Your task to perform on an android device: open app "DoorDash - Food Delivery" (install if not already installed) and enter user name: "Richard@outlook.com" and password: "informally" Image 0: 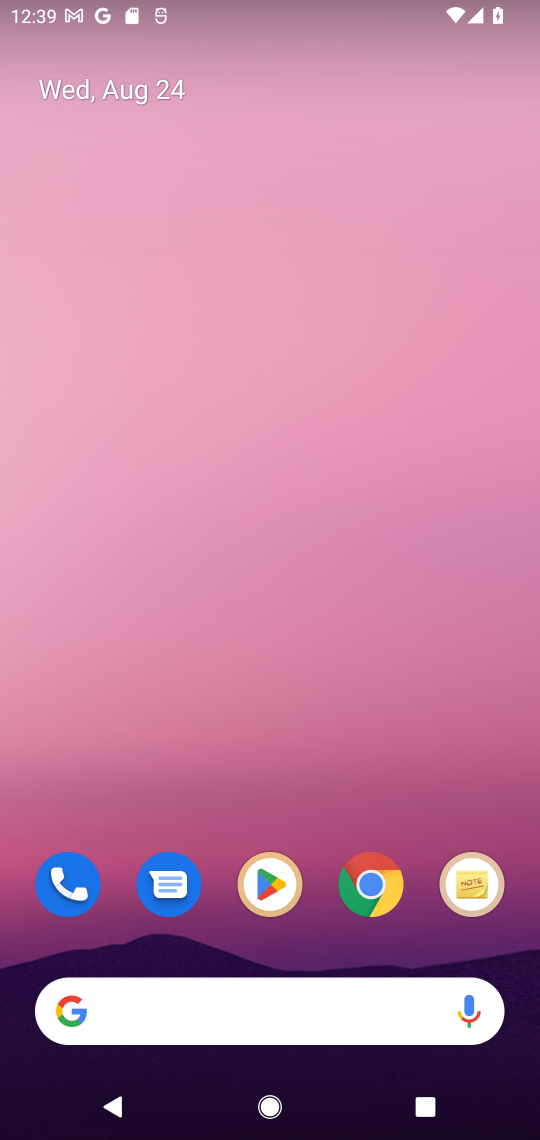
Step 0: drag from (241, 1016) to (243, 126)
Your task to perform on an android device: open app "DoorDash - Food Delivery" (install if not already installed) and enter user name: "Richard@outlook.com" and password: "informally" Image 1: 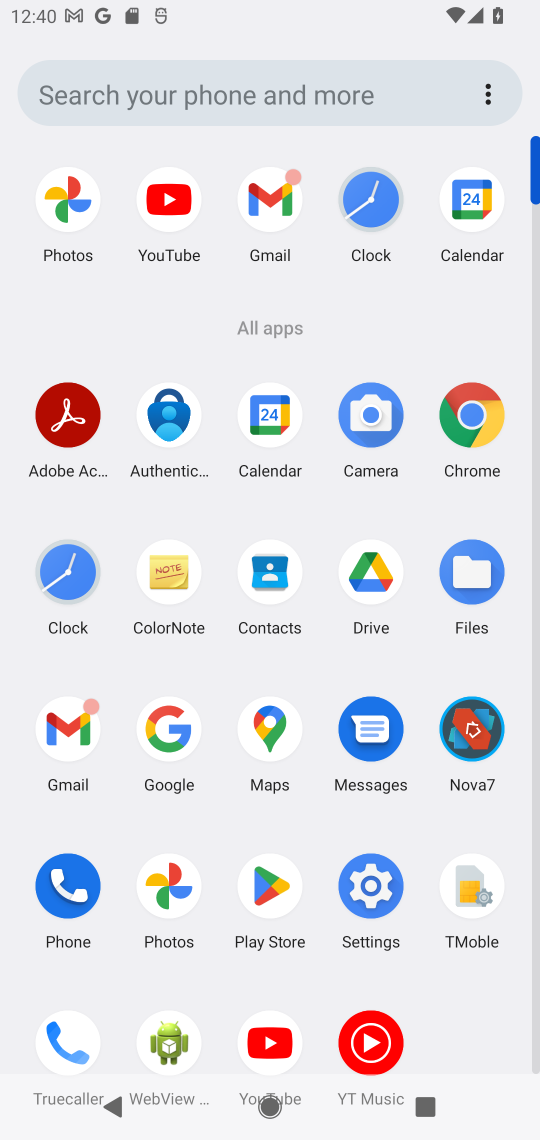
Step 1: click (276, 879)
Your task to perform on an android device: open app "DoorDash - Food Delivery" (install if not already installed) and enter user name: "Richard@outlook.com" and password: "informally" Image 2: 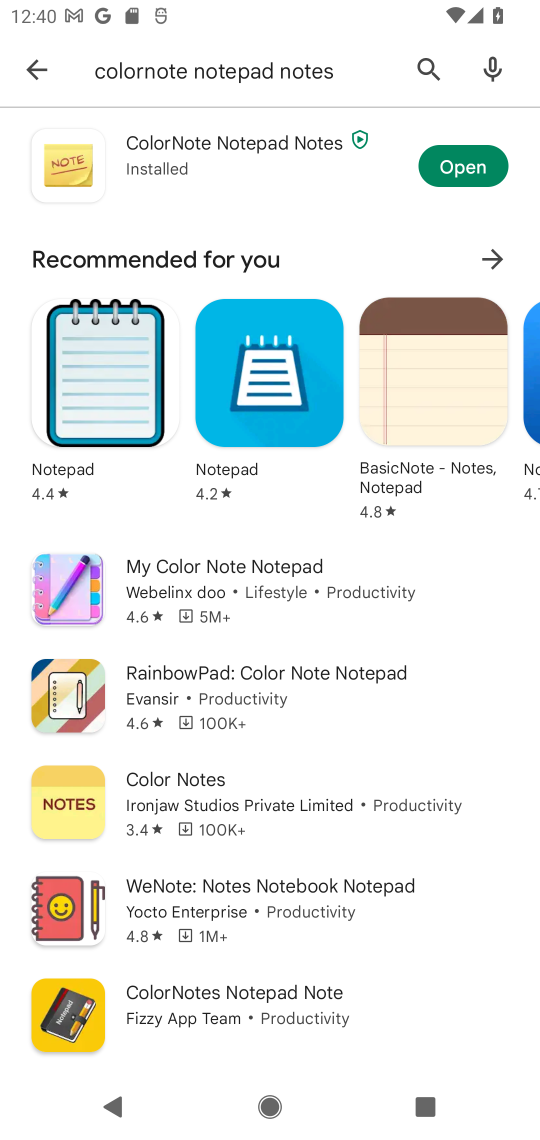
Step 2: press back button
Your task to perform on an android device: open app "DoorDash - Food Delivery" (install if not already installed) and enter user name: "Richard@outlook.com" and password: "informally" Image 3: 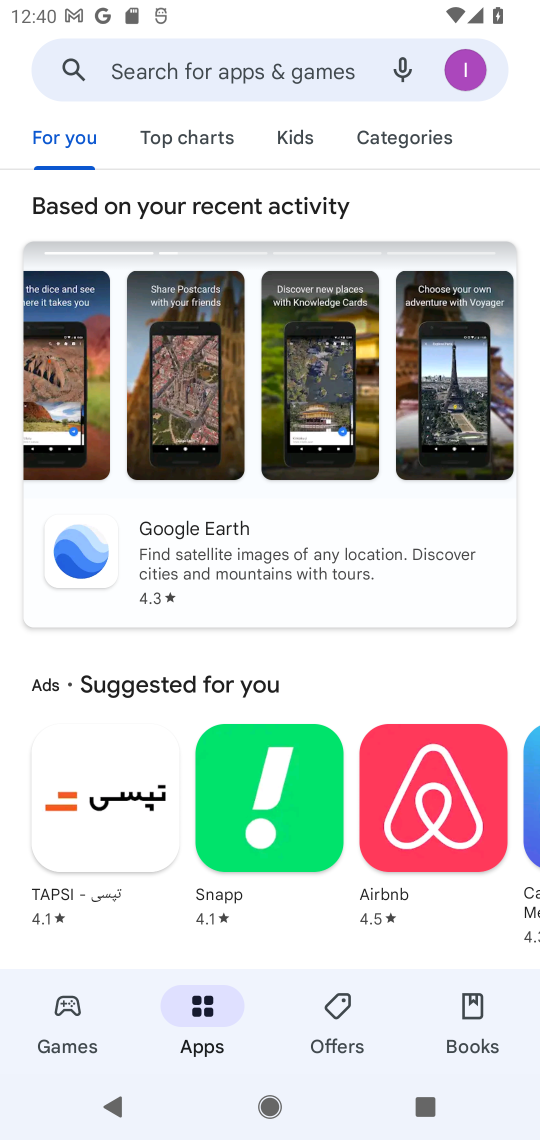
Step 3: click (182, 66)
Your task to perform on an android device: open app "DoorDash - Food Delivery" (install if not already installed) and enter user name: "Richard@outlook.com" and password: "informally" Image 4: 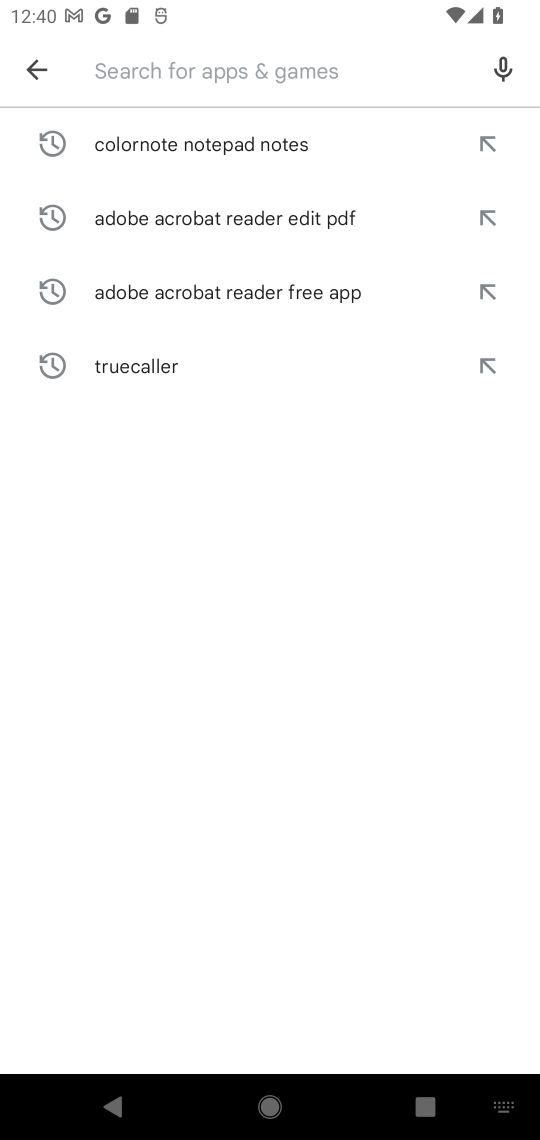
Step 4: type "DoorDash - Food Delivery"
Your task to perform on an android device: open app "DoorDash - Food Delivery" (install if not already installed) and enter user name: "Richard@outlook.com" and password: "informally" Image 5: 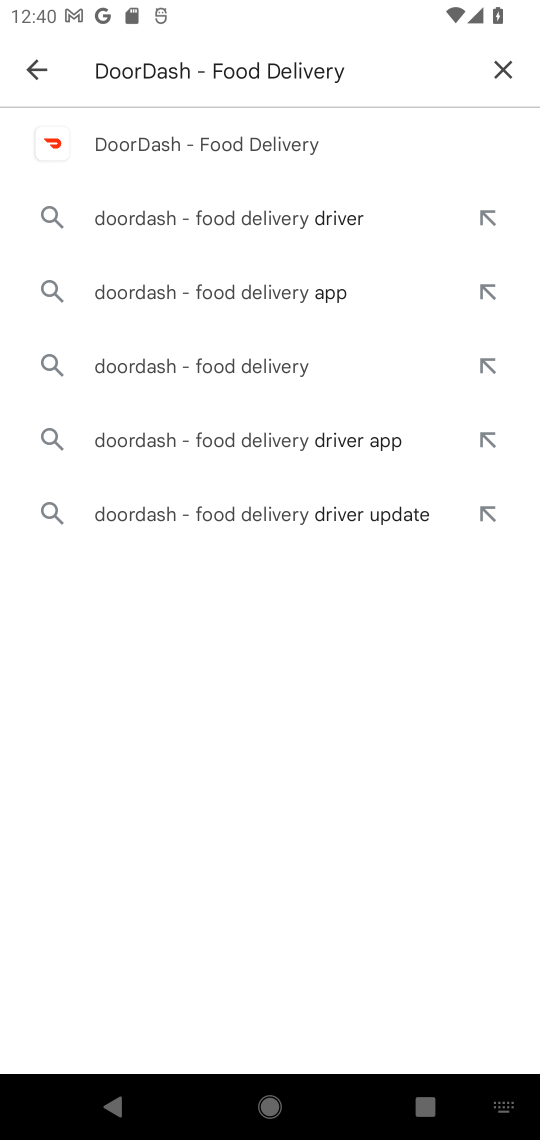
Step 5: click (296, 148)
Your task to perform on an android device: open app "DoorDash - Food Delivery" (install if not already installed) and enter user name: "Richard@outlook.com" and password: "informally" Image 6: 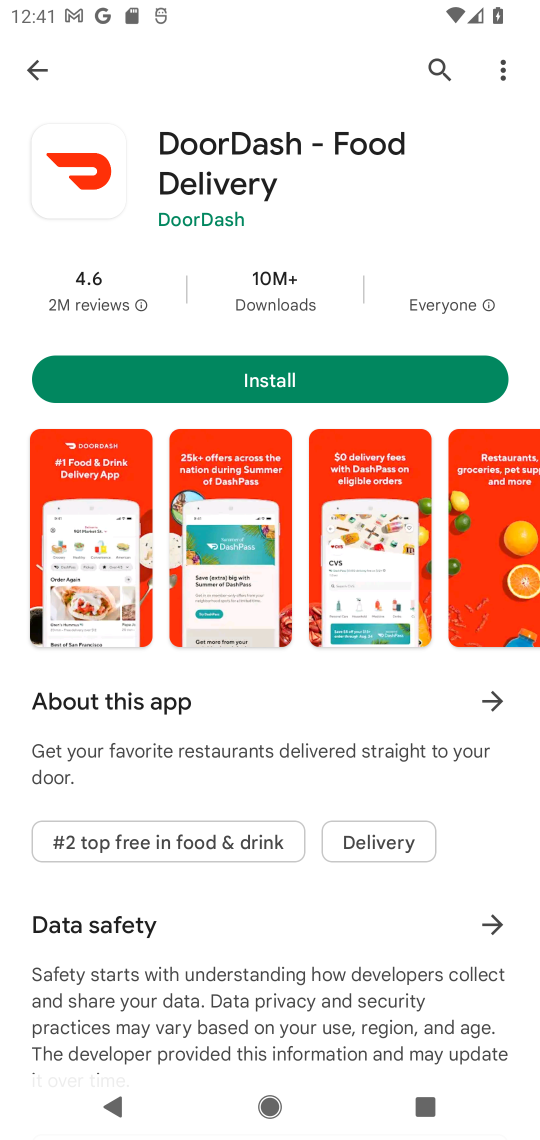
Step 6: click (261, 383)
Your task to perform on an android device: open app "DoorDash - Food Delivery" (install if not already installed) and enter user name: "Richard@outlook.com" and password: "informally" Image 7: 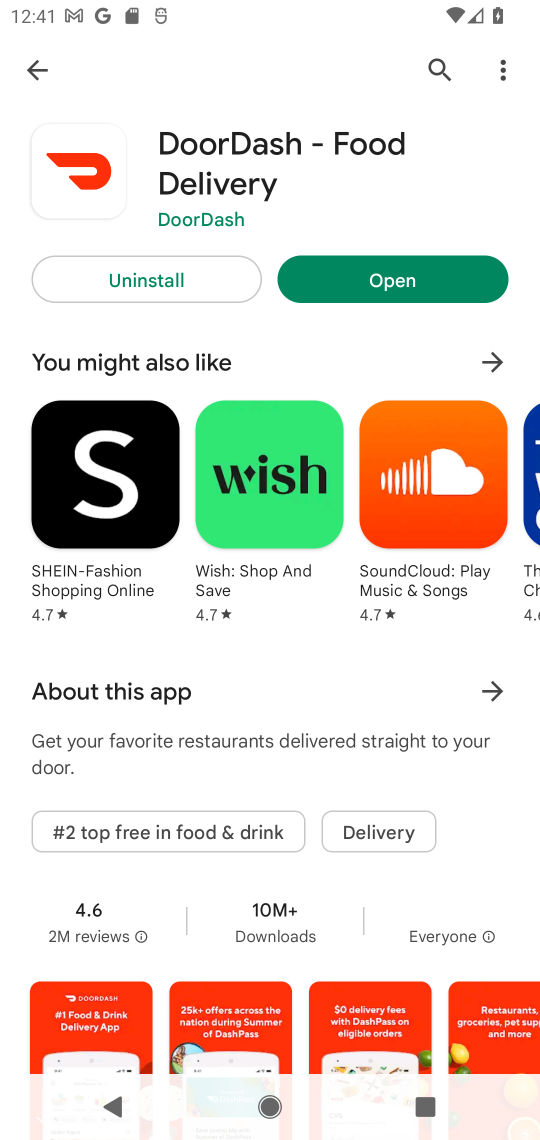
Step 7: click (399, 277)
Your task to perform on an android device: open app "DoorDash - Food Delivery" (install if not already installed) and enter user name: "Richard@outlook.com" and password: "informally" Image 8: 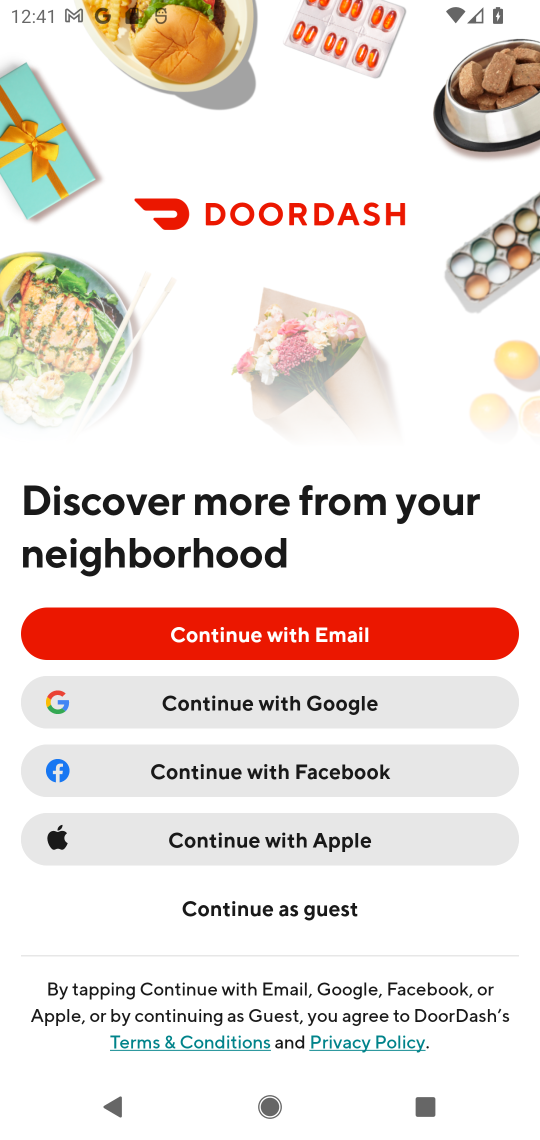
Step 8: click (258, 626)
Your task to perform on an android device: open app "DoorDash - Food Delivery" (install if not already installed) and enter user name: "Richard@outlook.com" and password: "informally" Image 9: 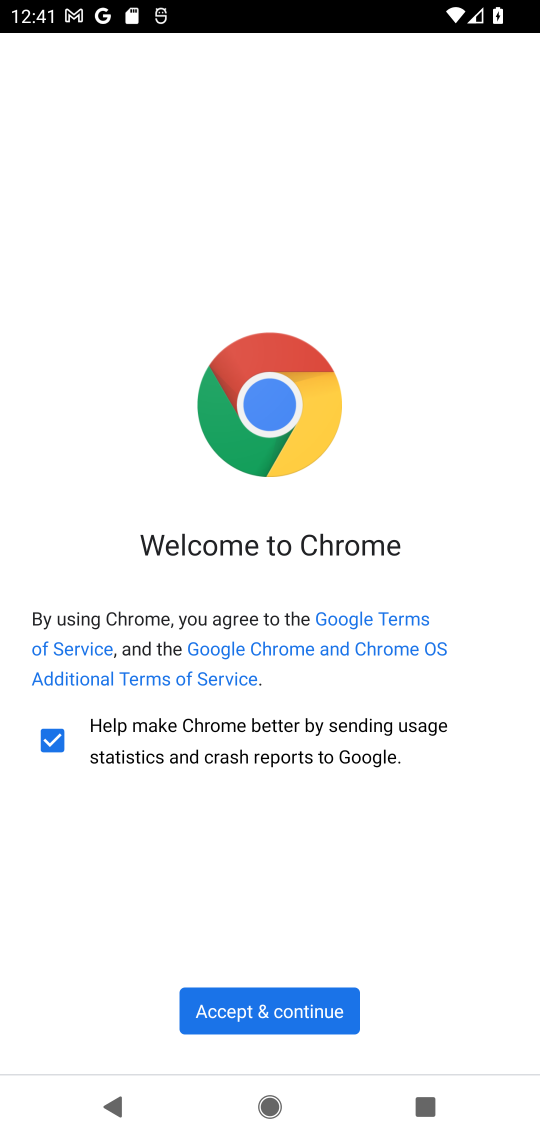
Step 9: click (246, 1013)
Your task to perform on an android device: open app "DoorDash - Food Delivery" (install if not already installed) and enter user name: "Richard@outlook.com" and password: "informally" Image 10: 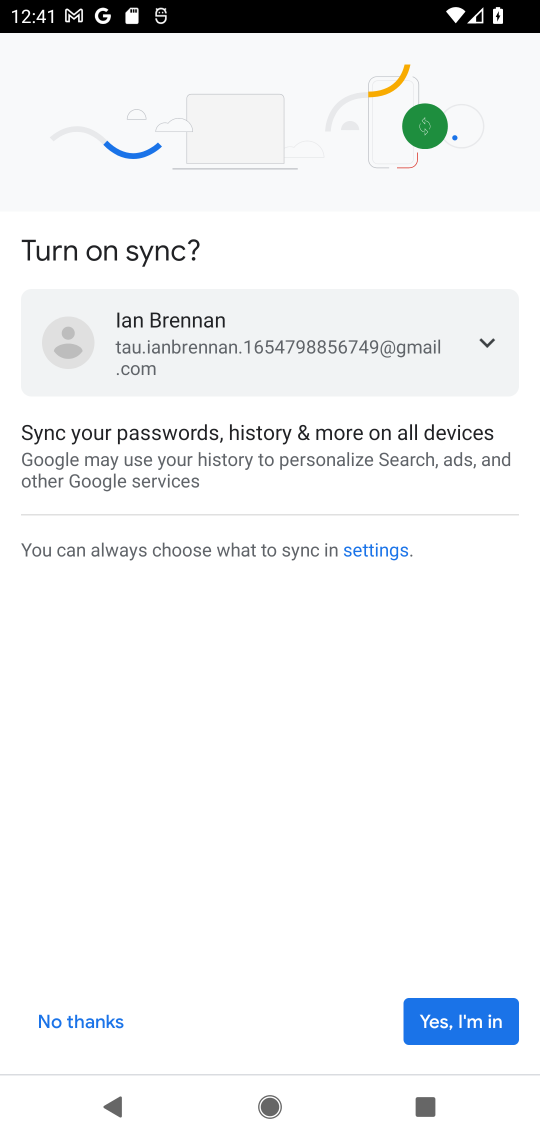
Step 10: click (91, 1016)
Your task to perform on an android device: open app "DoorDash - Food Delivery" (install if not already installed) and enter user name: "Richard@outlook.com" and password: "informally" Image 11: 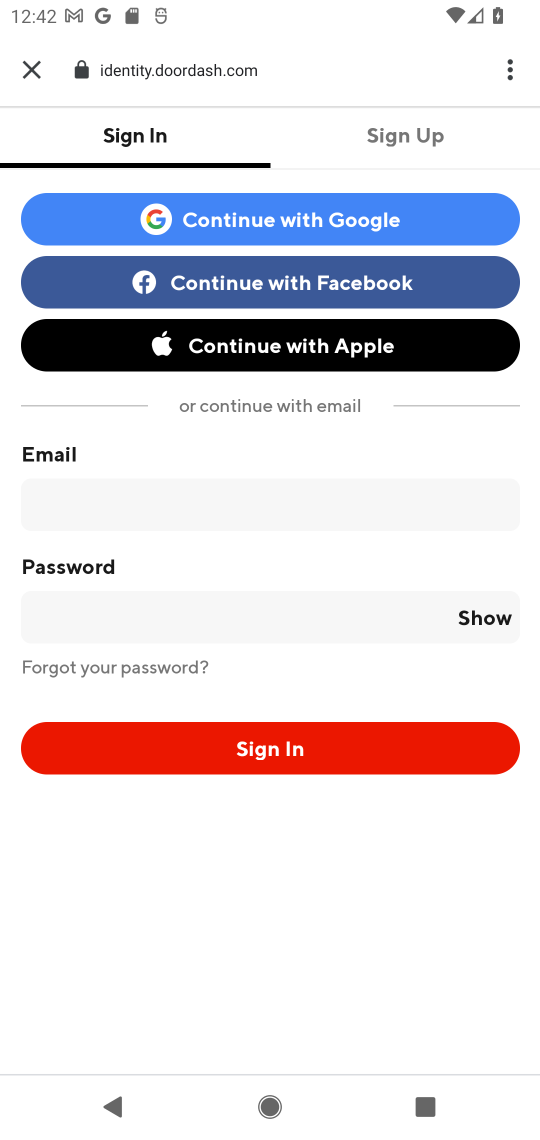
Step 11: click (152, 486)
Your task to perform on an android device: open app "DoorDash - Food Delivery" (install if not already installed) and enter user name: "Richard@outlook.com" and password: "informally" Image 12: 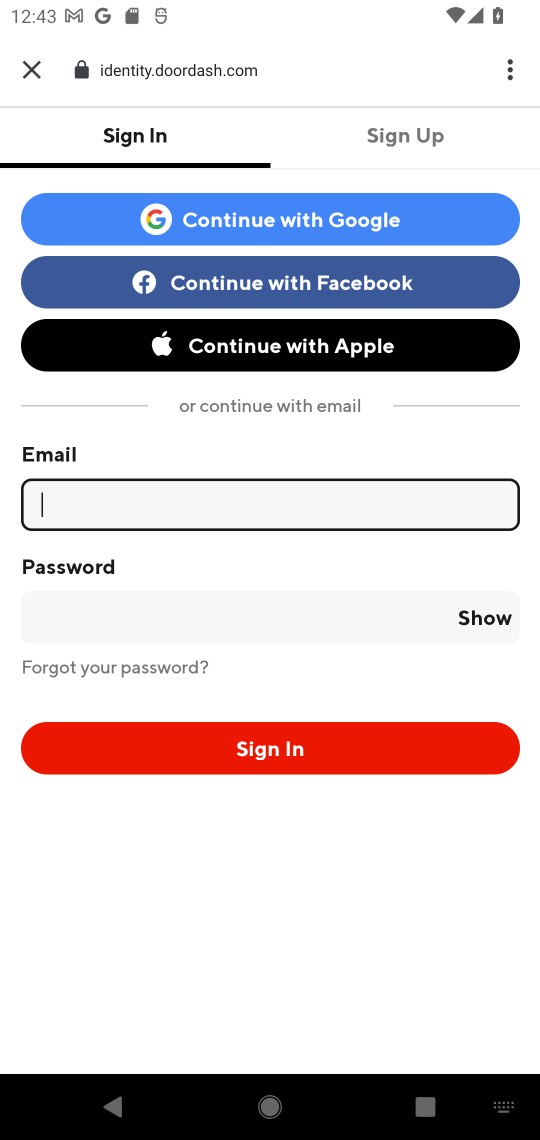
Step 12: type "Richard@outlook.com"
Your task to perform on an android device: open app "DoorDash - Food Delivery" (install if not already installed) and enter user name: "Richard@outlook.com" and password: "informally" Image 13: 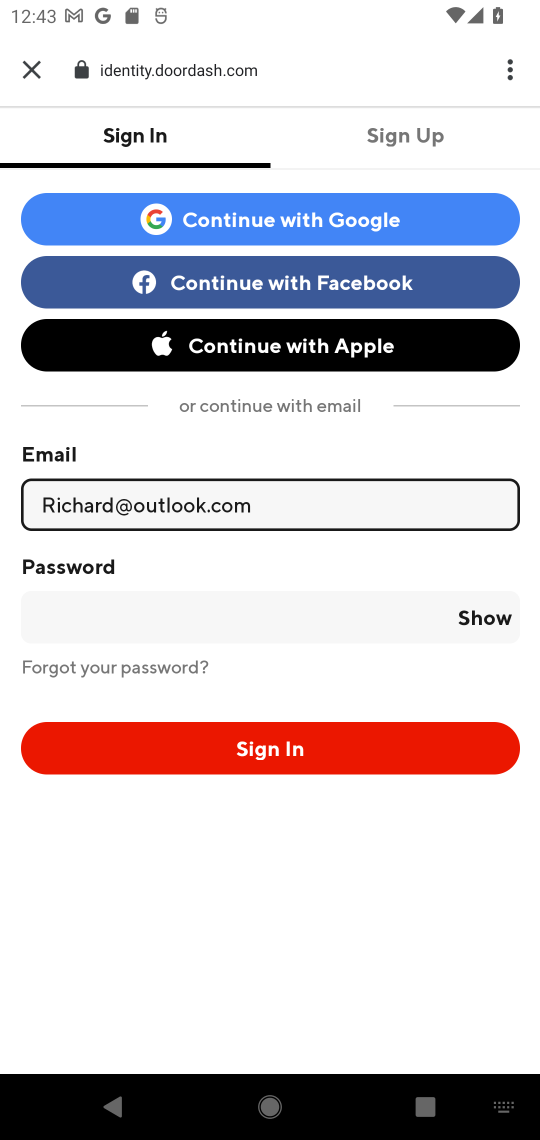
Step 13: click (285, 609)
Your task to perform on an android device: open app "DoorDash - Food Delivery" (install if not already installed) and enter user name: "Richard@outlook.com" and password: "informally" Image 14: 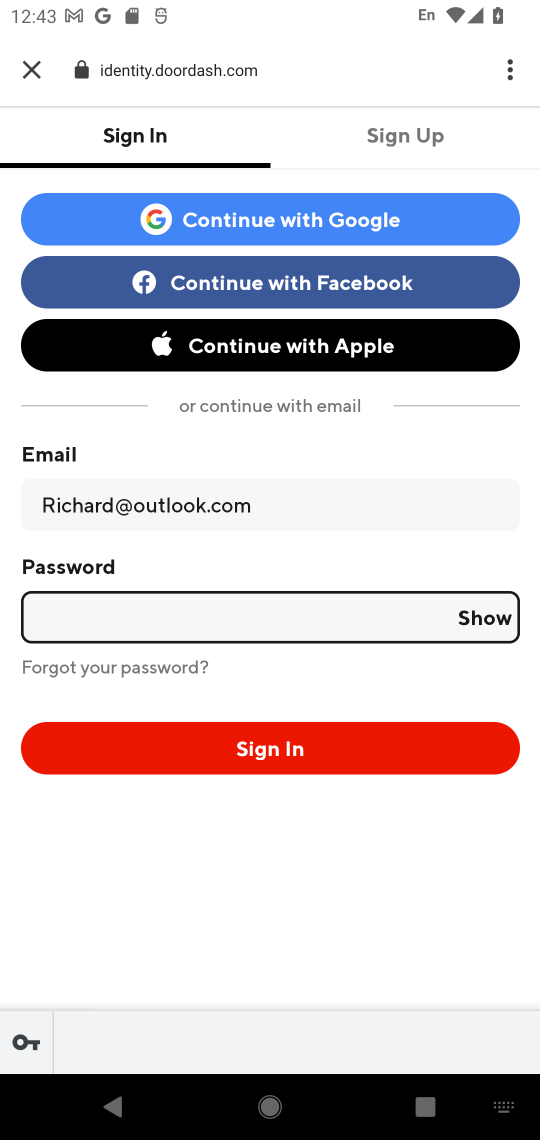
Step 14: type "informally"
Your task to perform on an android device: open app "DoorDash - Food Delivery" (install if not already installed) and enter user name: "Richard@outlook.com" and password: "informally" Image 15: 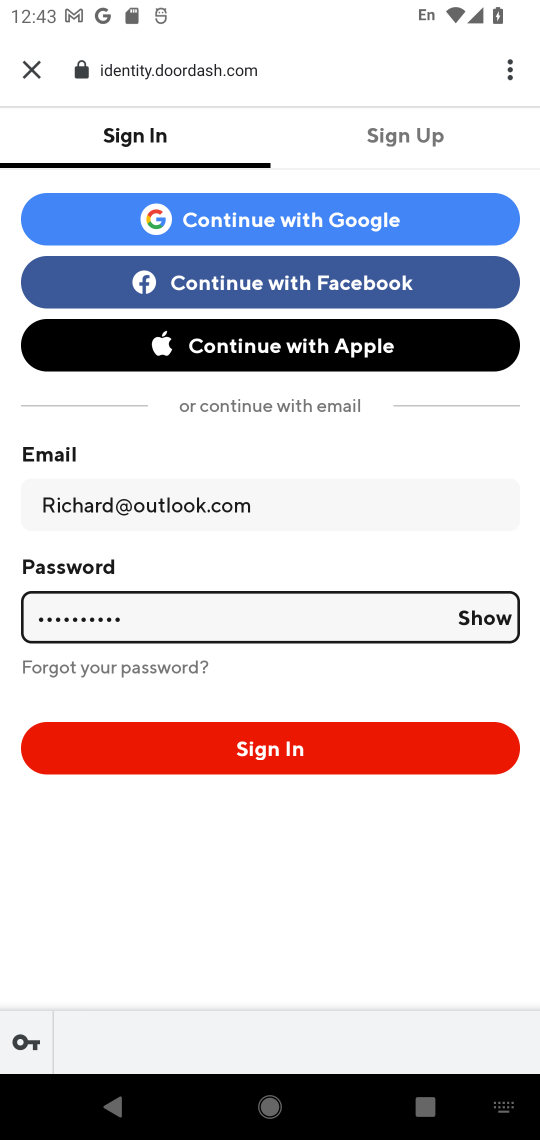
Step 15: task complete